Your task to perform on an android device: Open Google Maps and go to "Timeline" Image 0: 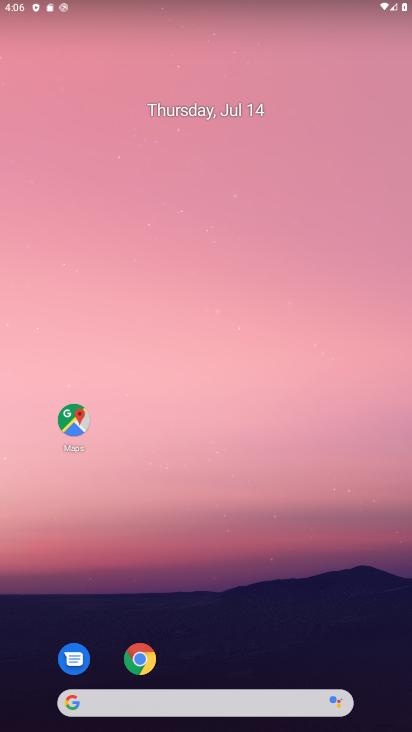
Step 0: click (199, 170)
Your task to perform on an android device: Open Google Maps and go to "Timeline" Image 1: 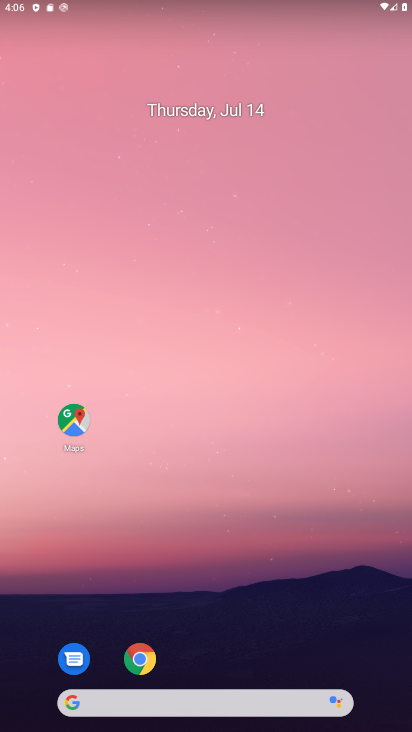
Step 1: drag from (140, 542) to (107, 149)
Your task to perform on an android device: Open Google Maps and go to "Timeline" Image 2: 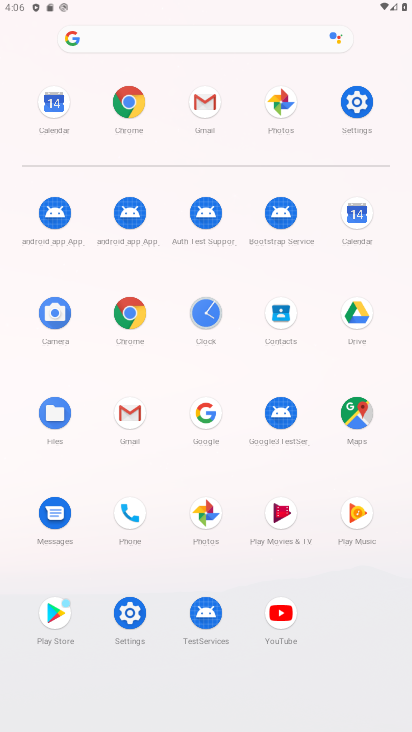
Step 2: click (366, 402)
Your task to perform on an android device: Open Google Maps and go to "Timeline" Image 3: 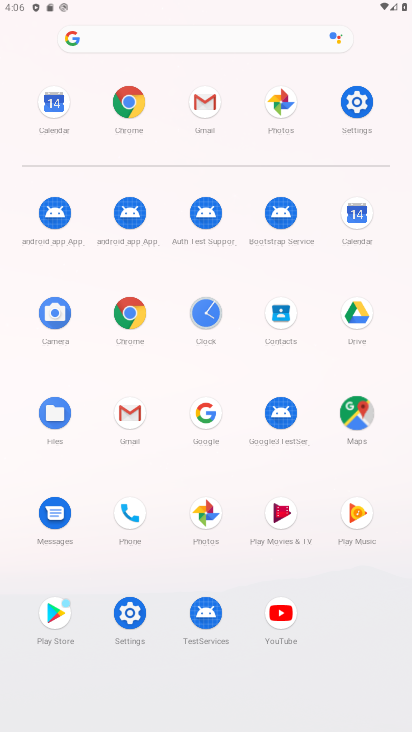
Step 3: click (367, 405)
Your task to perform on an android device: Open Google Maps and go to "Timeline" Image 4: 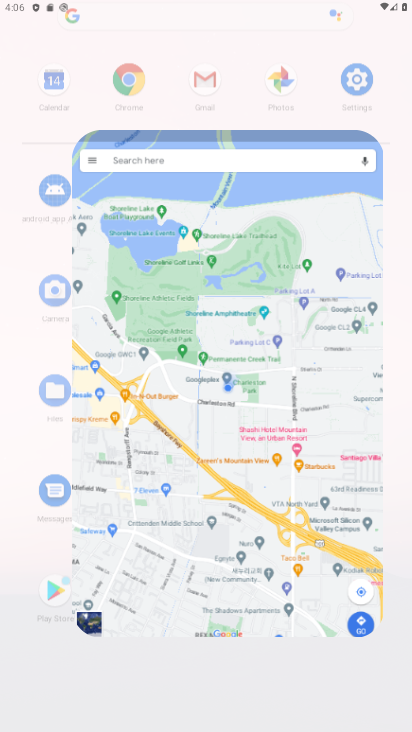
Step 4: click (368, 406)
Your task to perform on an android device: Open Google Maps and go to "Timeline" Image 5: 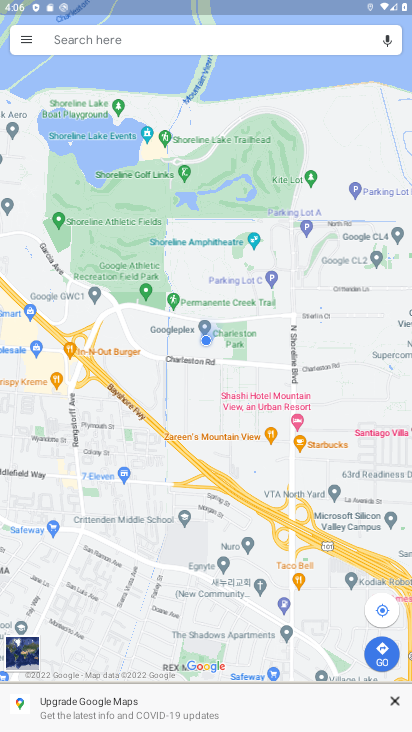
Step 5: click (24, 25)
Your task to perform on an android device: Open Google Maps and go to "Timeline" Image 6: 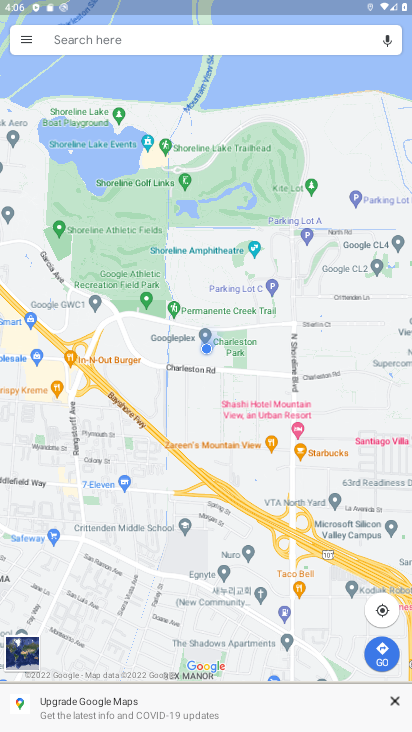
Step 6: click (22, 39)
Your task to perform on an android device: Open Google Maps and go to "Timeline" Image 7: 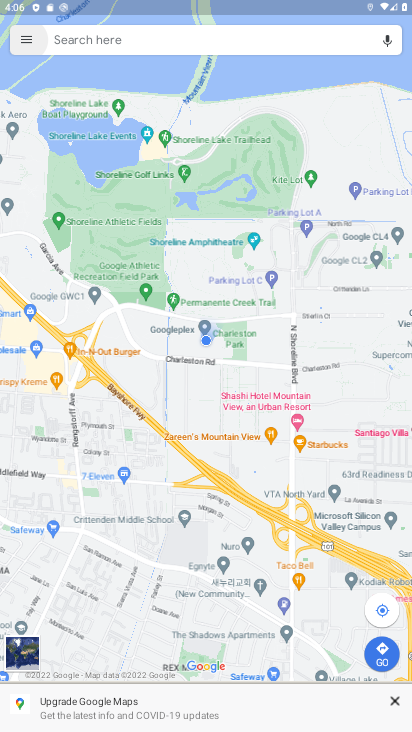
Step 7: drag from (24, 41) to (70, 143)
Your task to perform on an android device: Open Google Maps and go to "Timeline" Image 8: 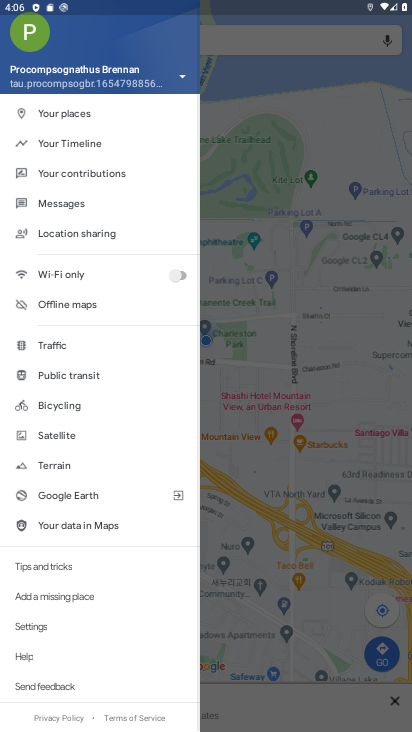
Step 8: click (75, 143)
Your task to perform on an android device: Open Google Maps and go to "Timeline" Image 9: 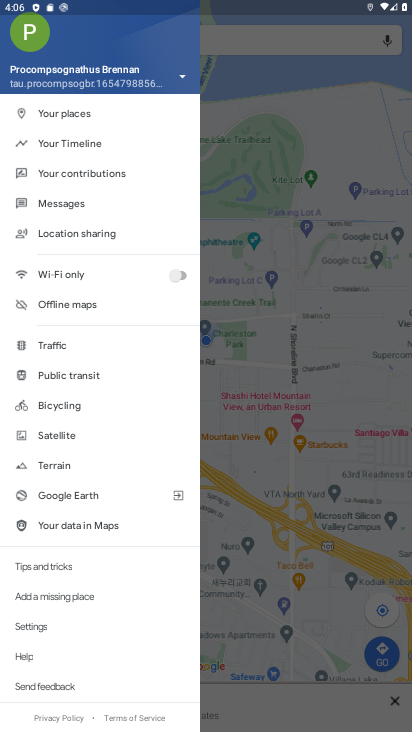
Step 9: click (74, 144)
Your task to perform on an android device: Open Google Maps and go to "Timeline" Image 10: 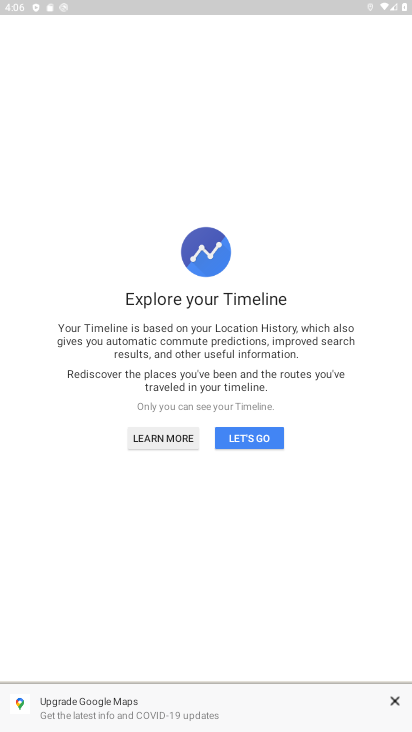
Step 10: task complete